Your task to perform on an android device: Open privacy settings Image 0: 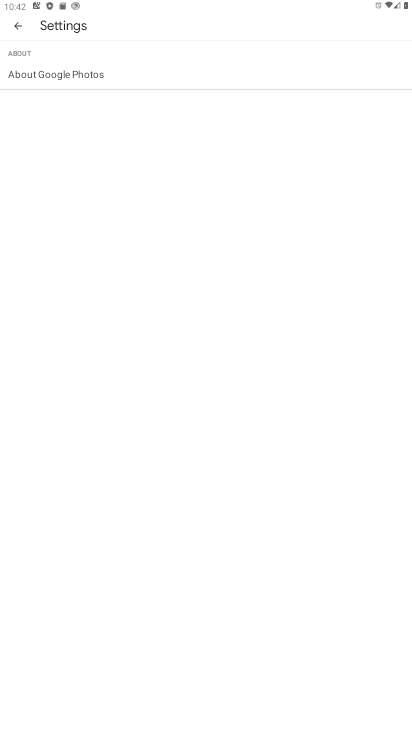
Step 0: drag from (182, 6) to (271, 694)
Your task to perform on an android device: Open privacy settings Image 1: 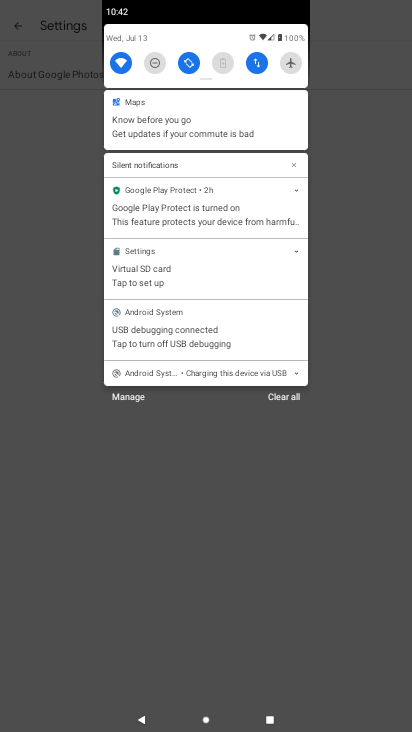
Step 1: drag from (207, 46) to (259, 651)
Your task to perform on an android device: Open privacy settings Image 2: 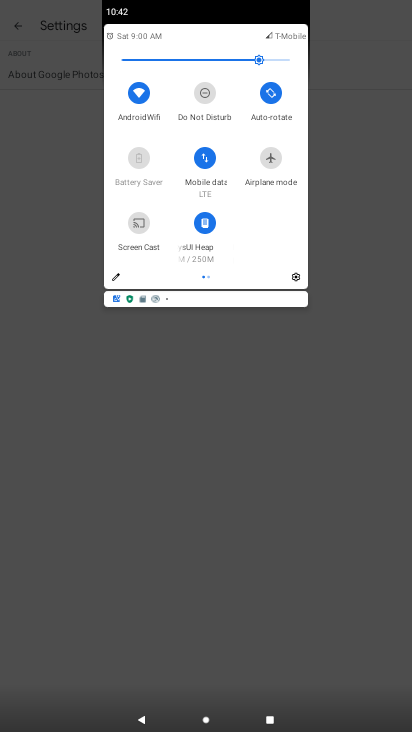
Step 2: click (299, 274)
Your task to perform on an android device: Open privacy settings Image 3: 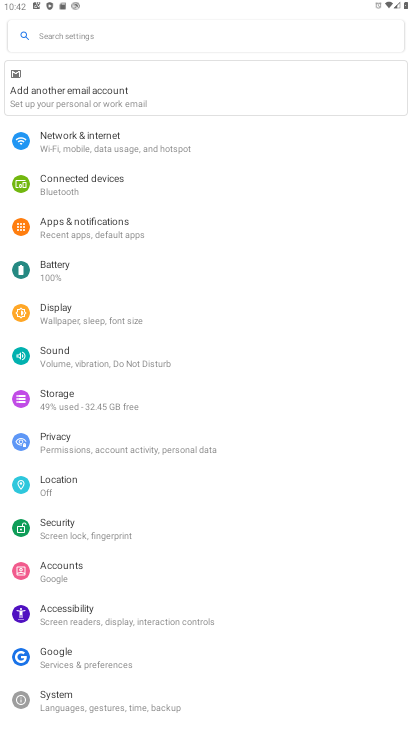
Step 3: click (91, 451)
Your task to perform on an android device: Open privacy settings Image 4: 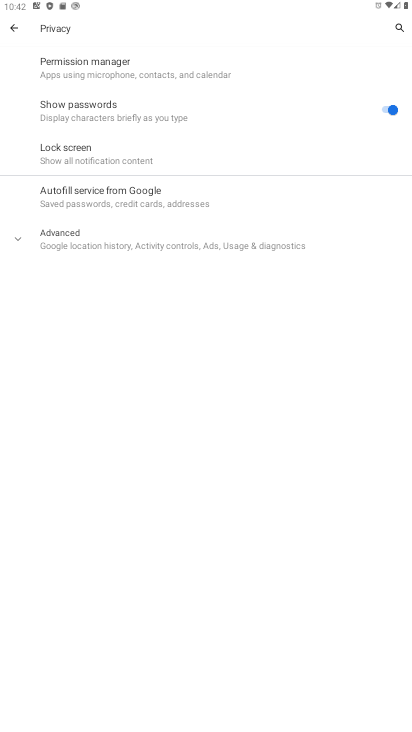
Step 4: task complete